Your task to perform on an android device: Open the web browser Image 0: 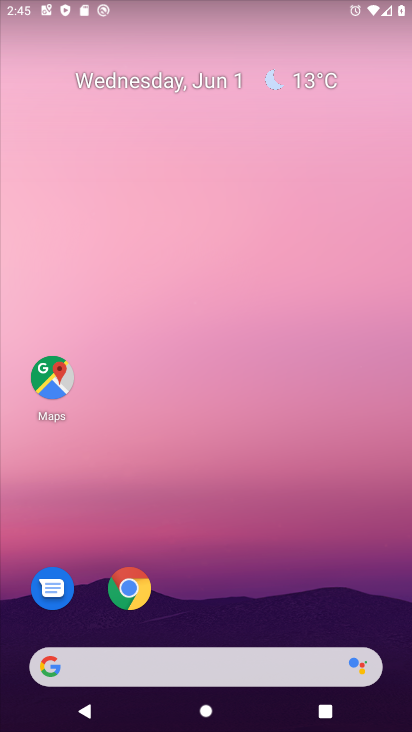
Step 0: click (129, 598)
Your task to perform on an android device: Open the web browser Image 1: 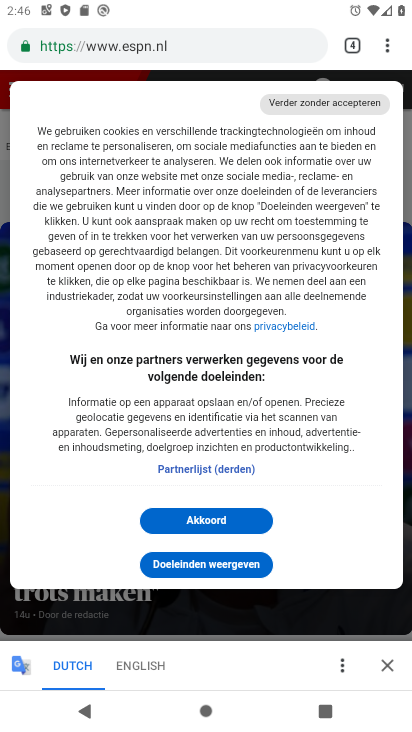
Step 1: task complete